Your task to perform on an android device: install app "Google Chrome" Image 0: 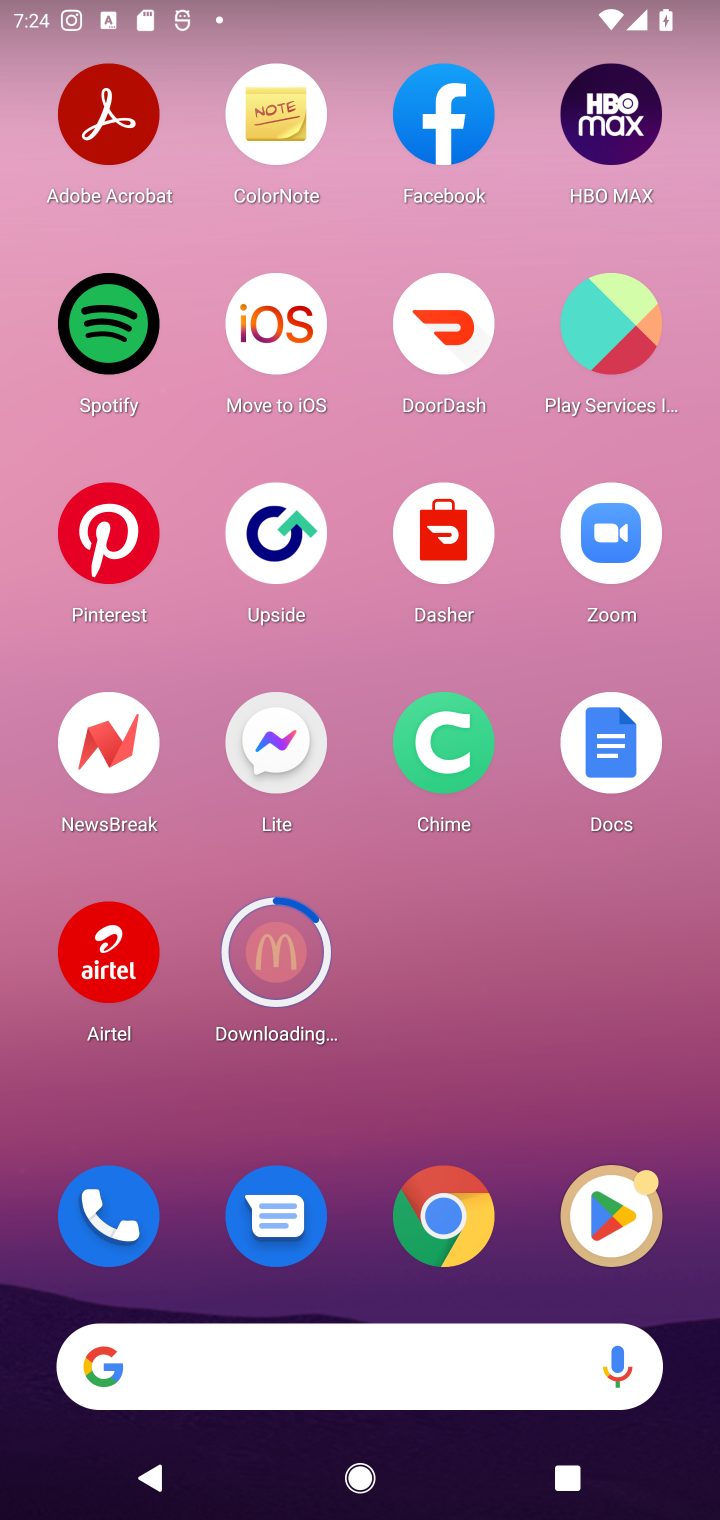
Step 0: click (590, 1247)
Your task to perform on an android device: install app "Google Chrome" Image 1: 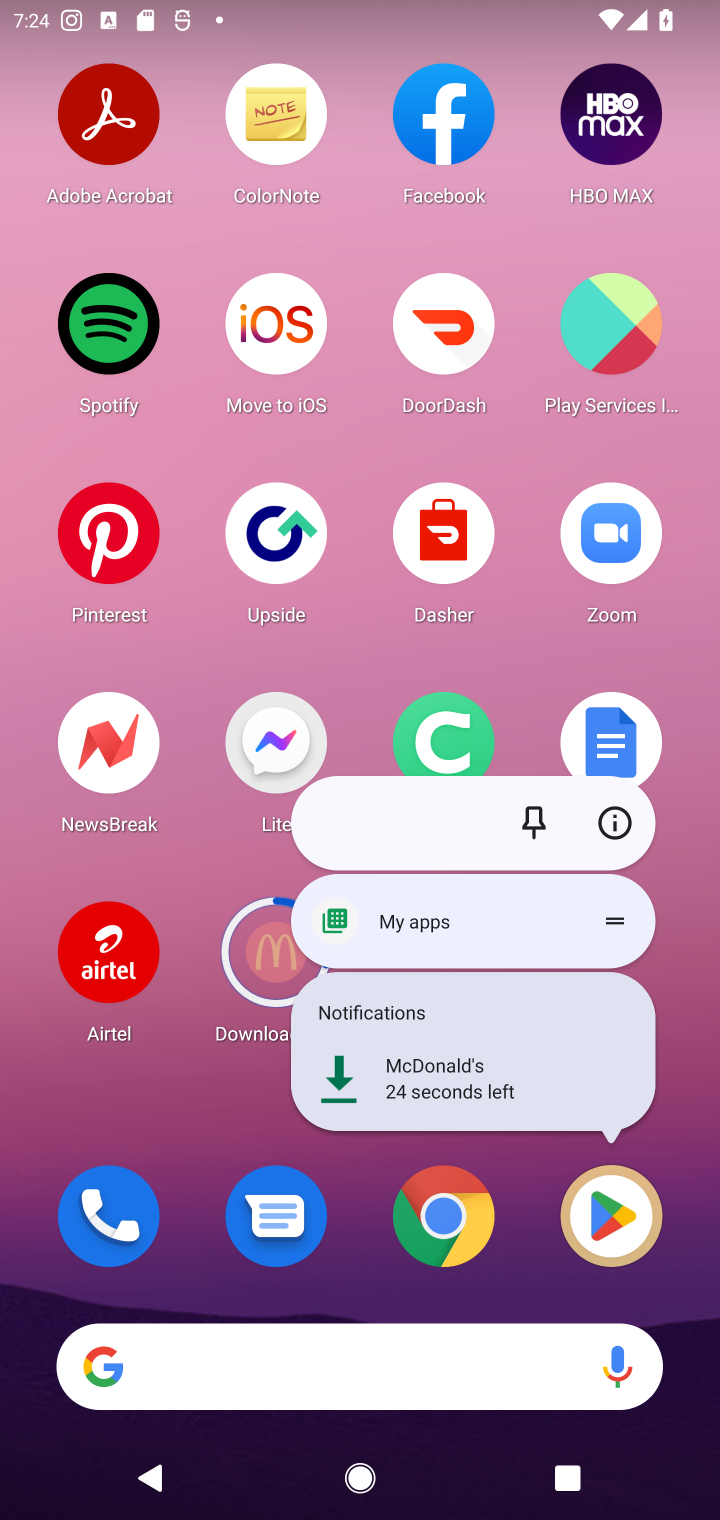
Step 1: click (600, 1223)
Your task to perform on an android device: install app "Google Chrome" Image 2: 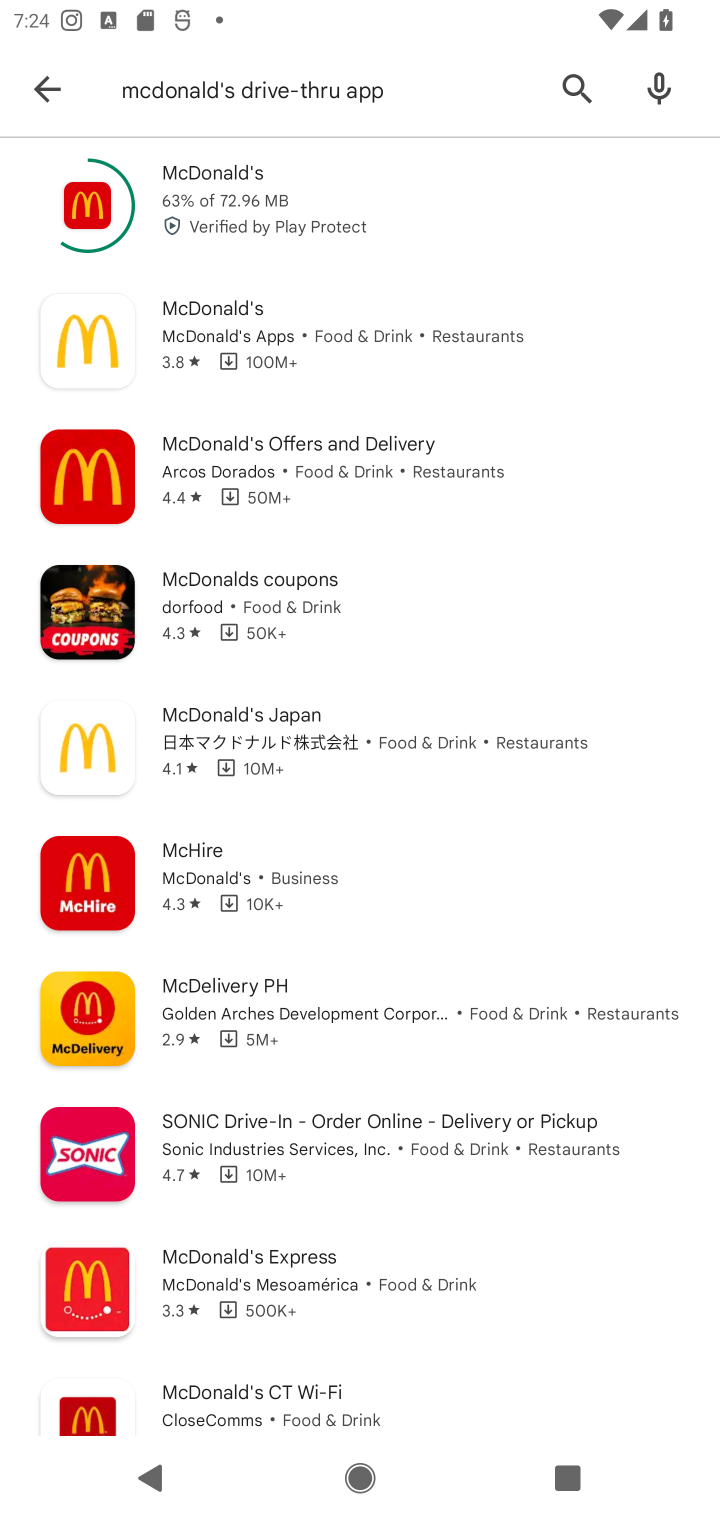
Step 2: click (581, 84)
Your task to perform on an android device: install app "Google Chrome" Image 3: 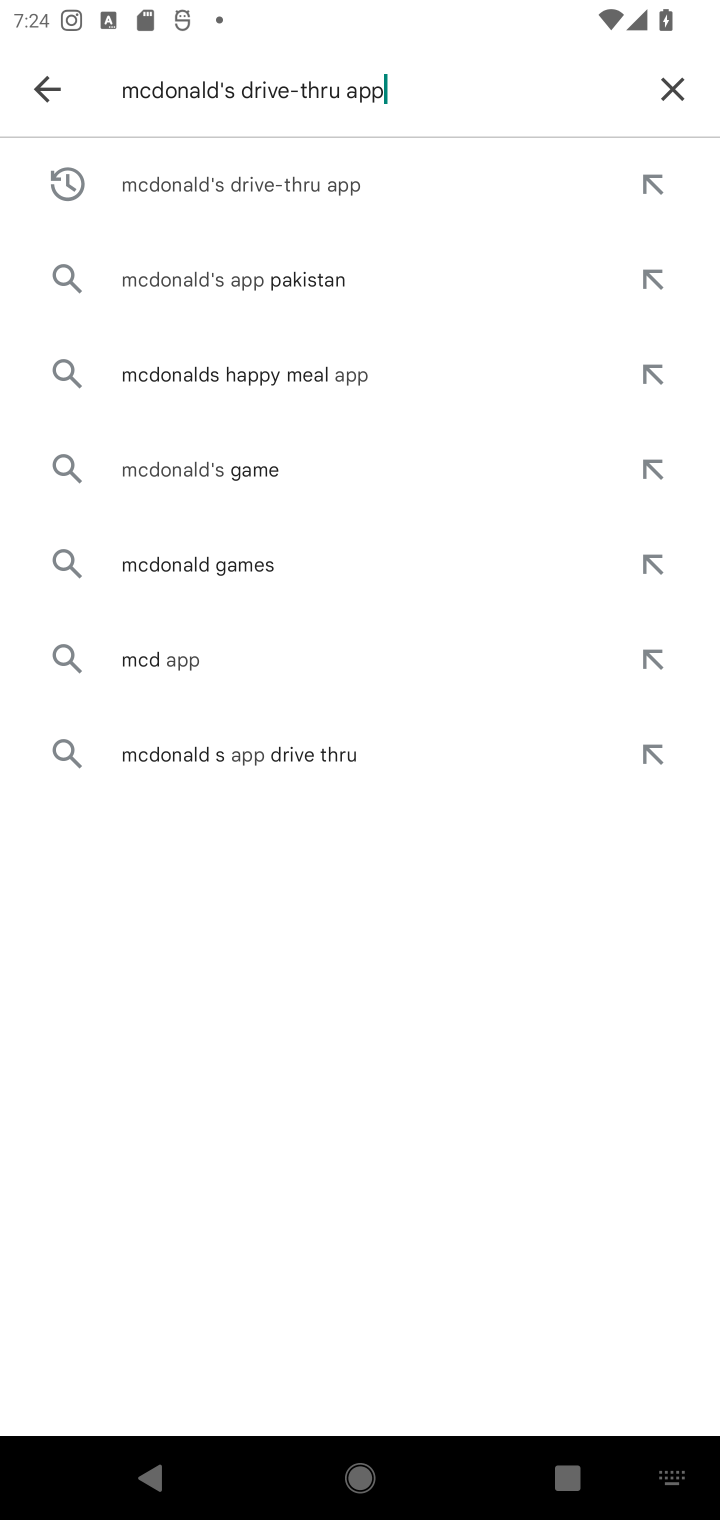
Step 3: click (681, 81)
Your task to perform on an android device: install app "Google Chrome" Image 4: 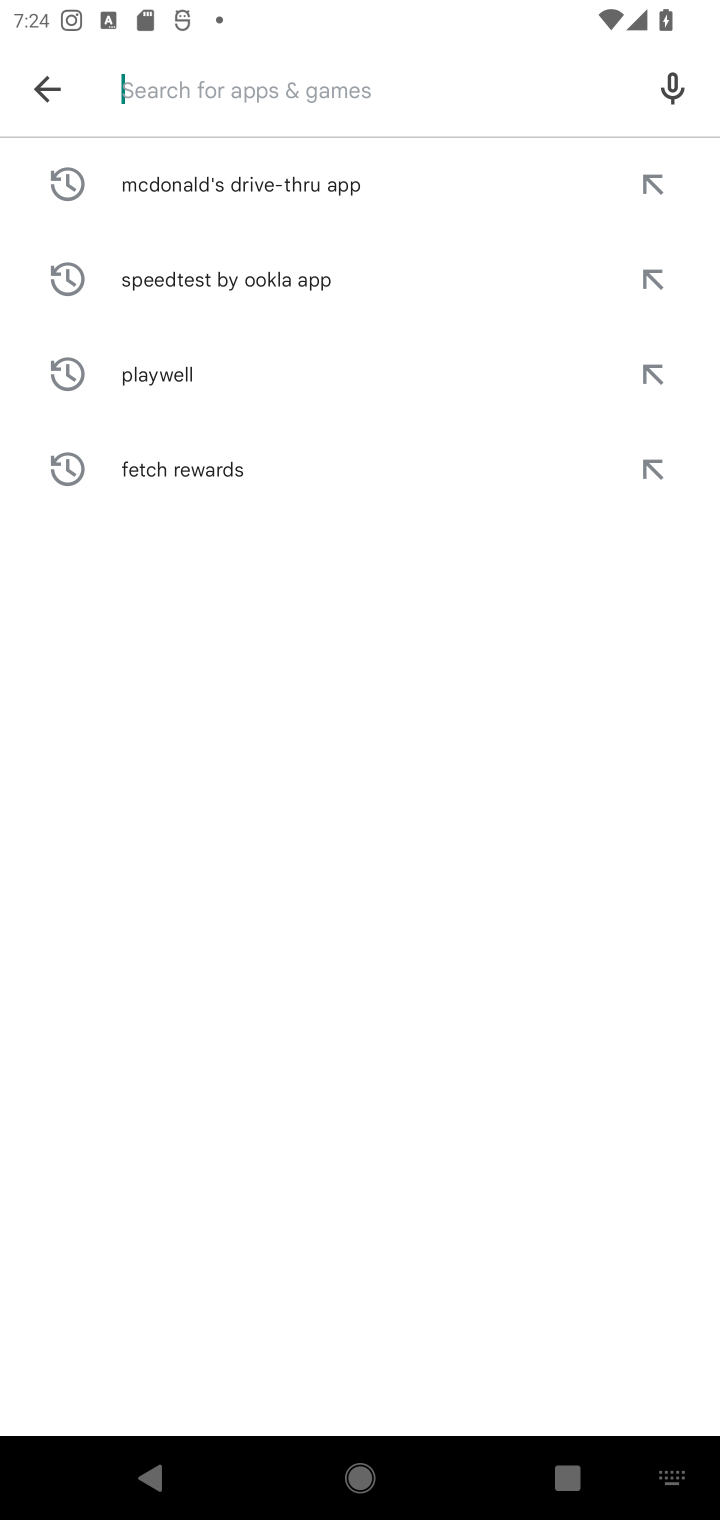
Step 4: type "Google Chrome"
Your task to perform on an android device: install app "Google Chrome" Image 5: 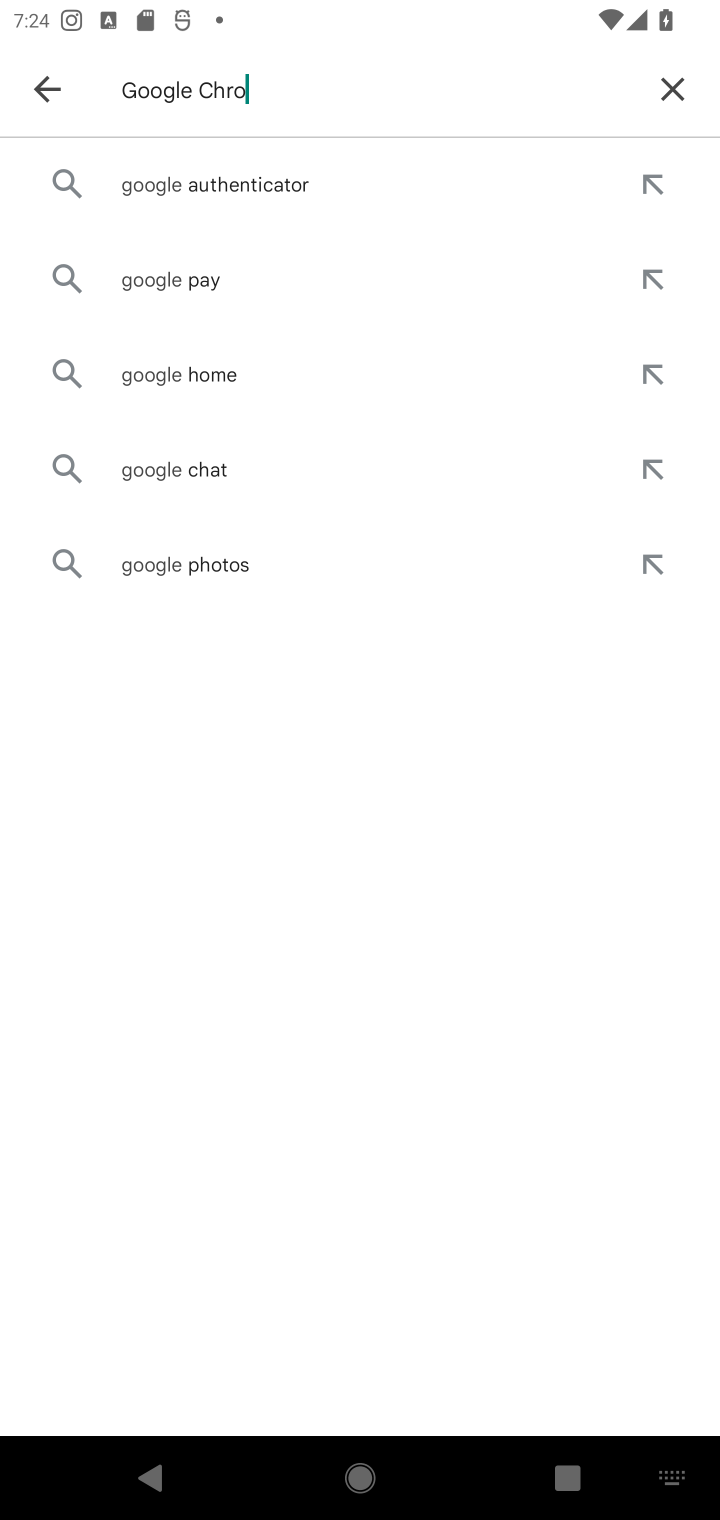
Step 5: type ""
Your task to perform on an android device: install app "Google Chrome" Image 6: 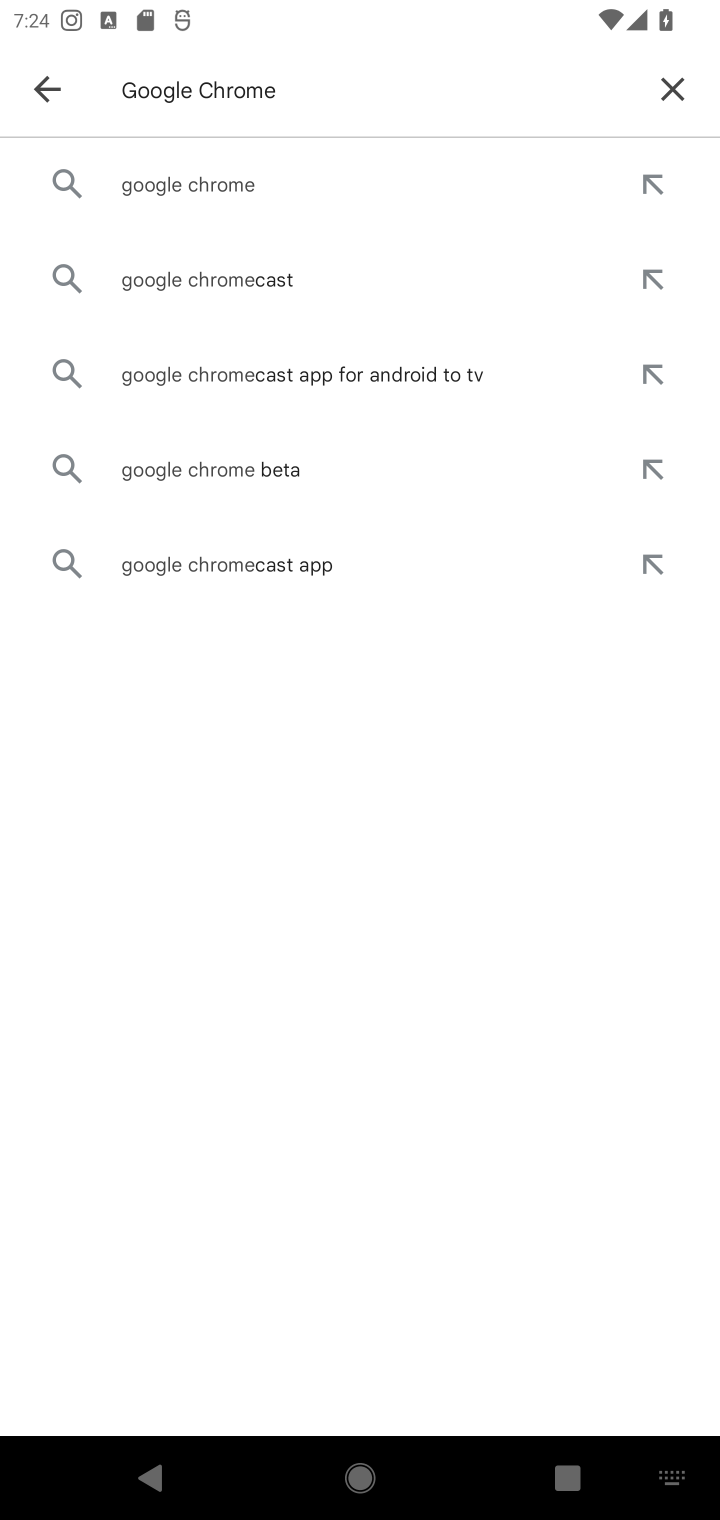
Step 6: click (348, 174)
Your task to perform on an android device: install app "Google Chrome" Image 7: 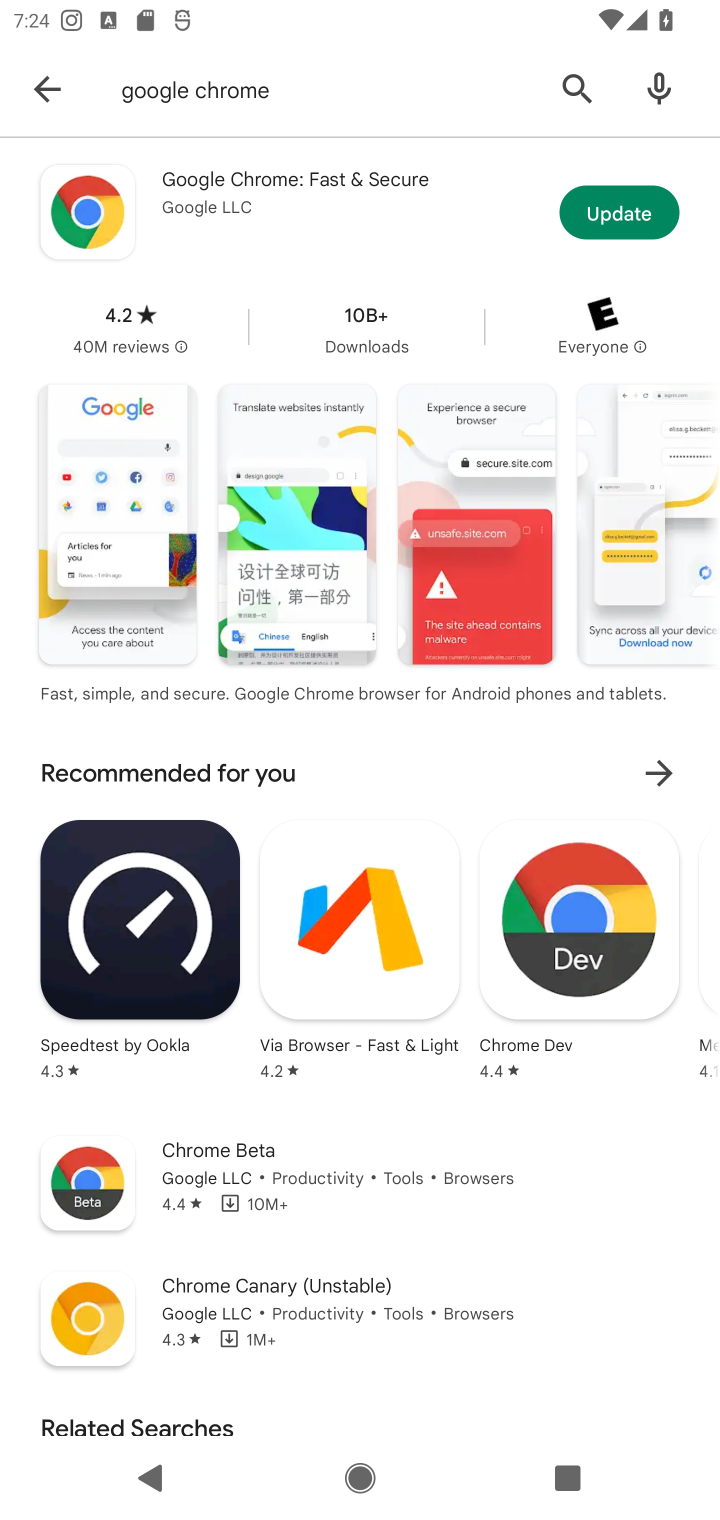
Step 7: task complete